Your task to perform on an android device: toggle wifi Image 0: 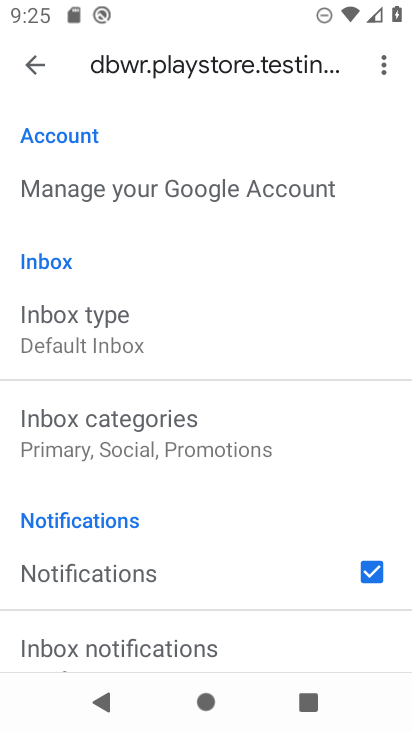
Step 0: press home button
Your task to perform on an android device: toggle wifi Image 1: 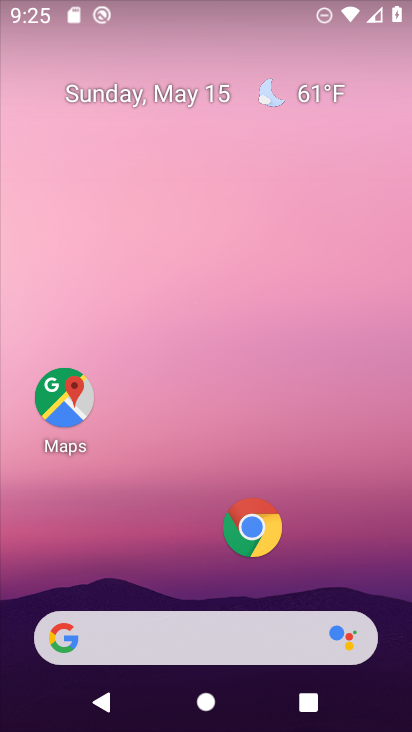
Step 1: drag from (187, 3) to (184, 560)
Your task to perform on an android device: toggle wifi Image 2: 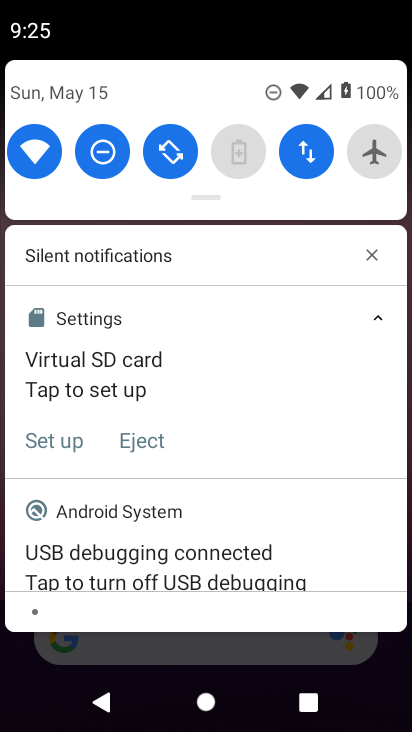
Step 2: click (33, 149)
Your task to perform on an android device: toggle wifi Image 3: 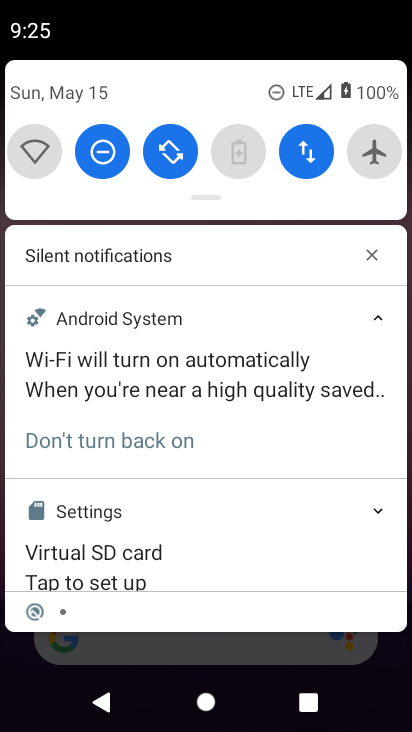
Step 3: task complete